Your task to perform on an android device: Clear the cart on walmart. Add razer naga to the cart on walmart, then select checkout. Image 0: 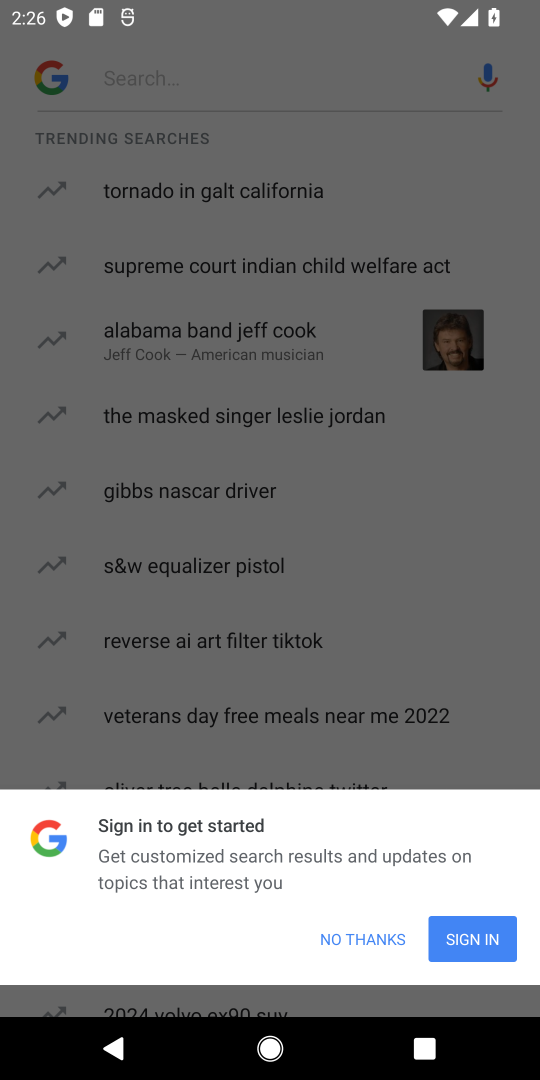
Step 0: press home button
Your task to perform on an android device: Clear the cart on walmart. Add razer naga to the cart on walmart, then select checkout. Image 1: 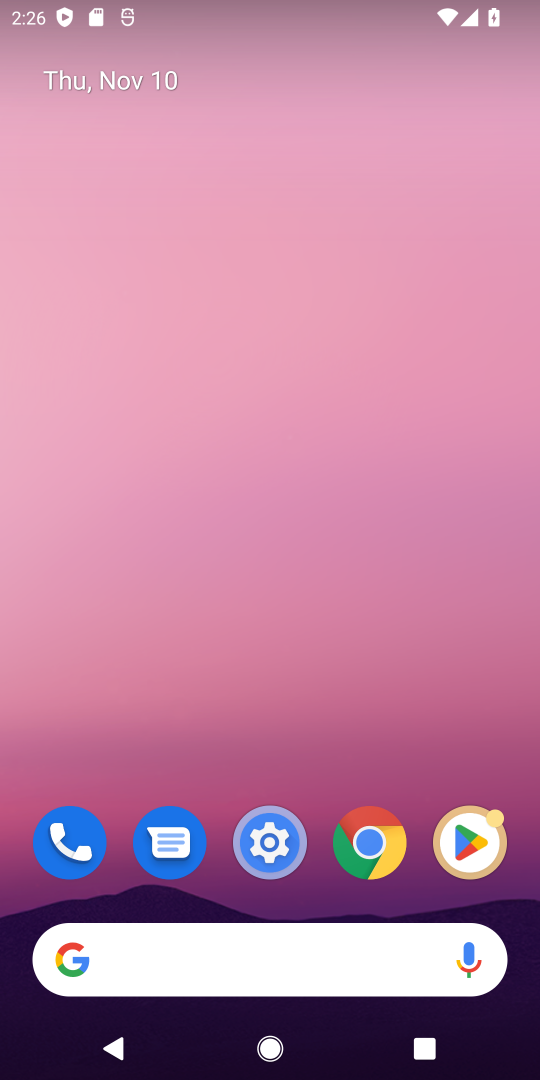
Step 1: click (117, 956)
Your task to perform on an android device: Clear the cart on walmart. Add razer naga to the cart on walmart, then select checkout. Image 2: 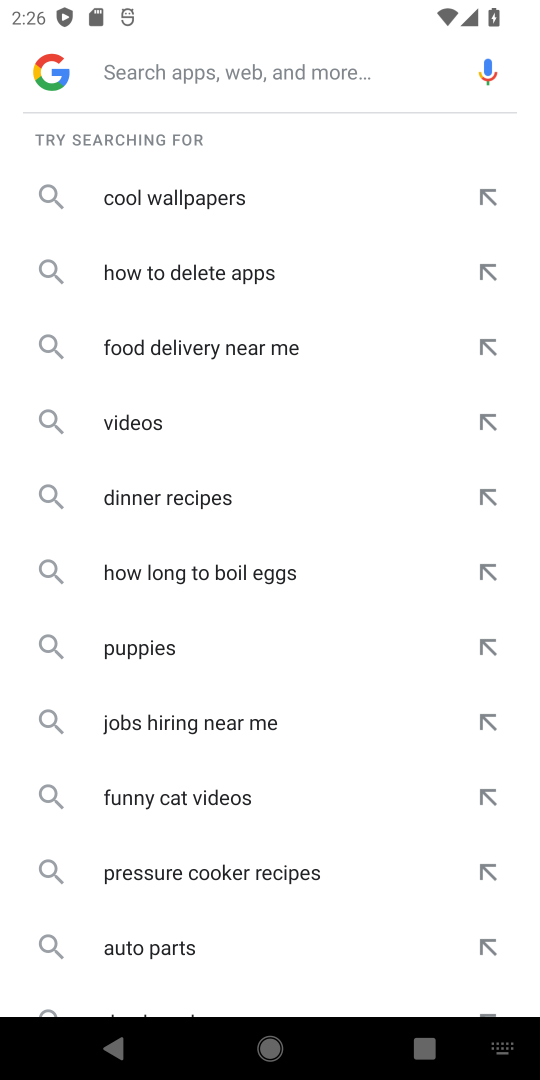
Step 2: type " walmart."
Your task to perform on an android device: Clear the cart on walmart. Add razer naga to the cart on walmart, then select checkout. Image 3: 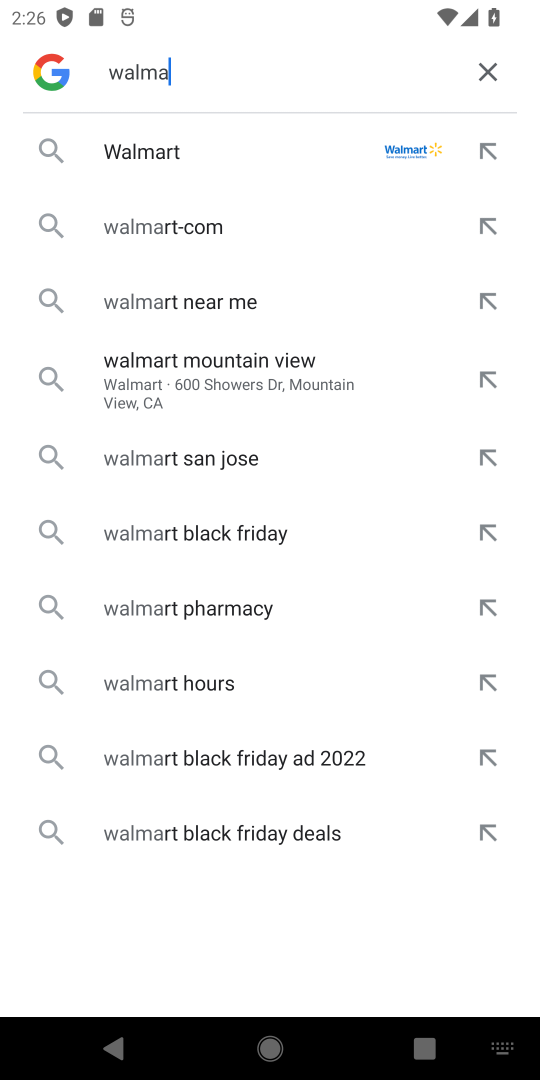
Step 3: press enter
Your task to perform on an android device: Clear the cart on walmart. Add razer naga to the cart on walmart, then select checkout. Image 4: 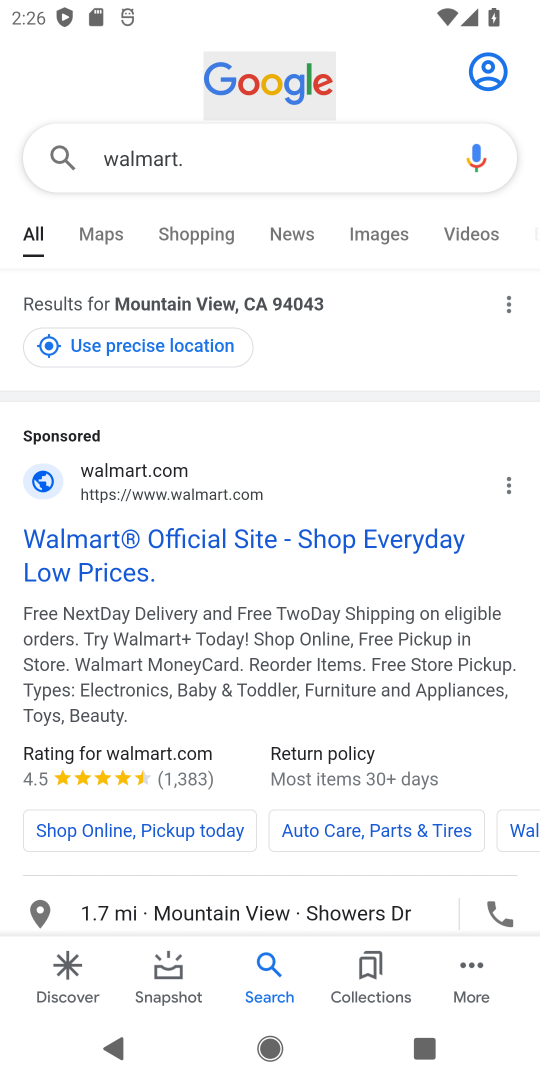
Step 4: click (92, 537)
Your task to perform on an android device: Clear the cart on walmart. Add razer naga to the cart on walmart, then select checkout. Image 5: 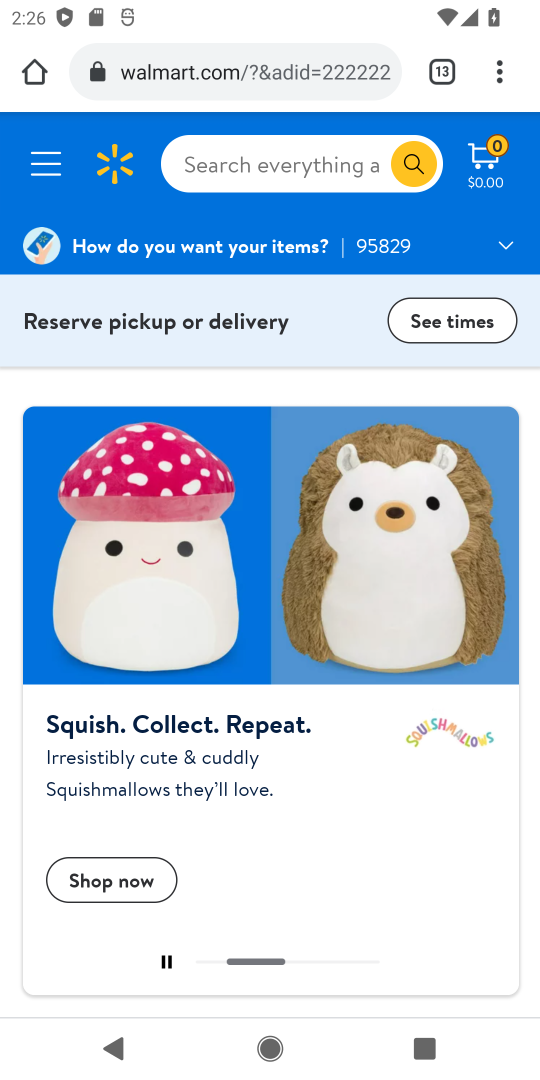
Step 5: click (226, 156)
Your task to perform on an android device: Clear the cart on walmart. Add razer naga to the cart on walmart, then select checkout. Image 6: 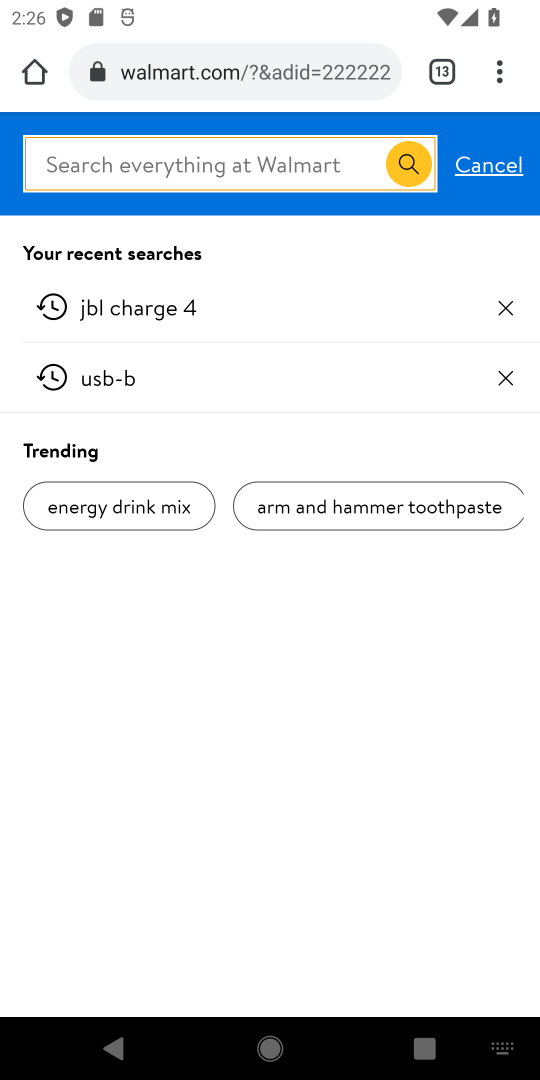
Step 6: press enter
Your task to perform on an android device: Clear the cart on walmart. Add razer naga to the cart on walmart, then select checkout. Image 7: 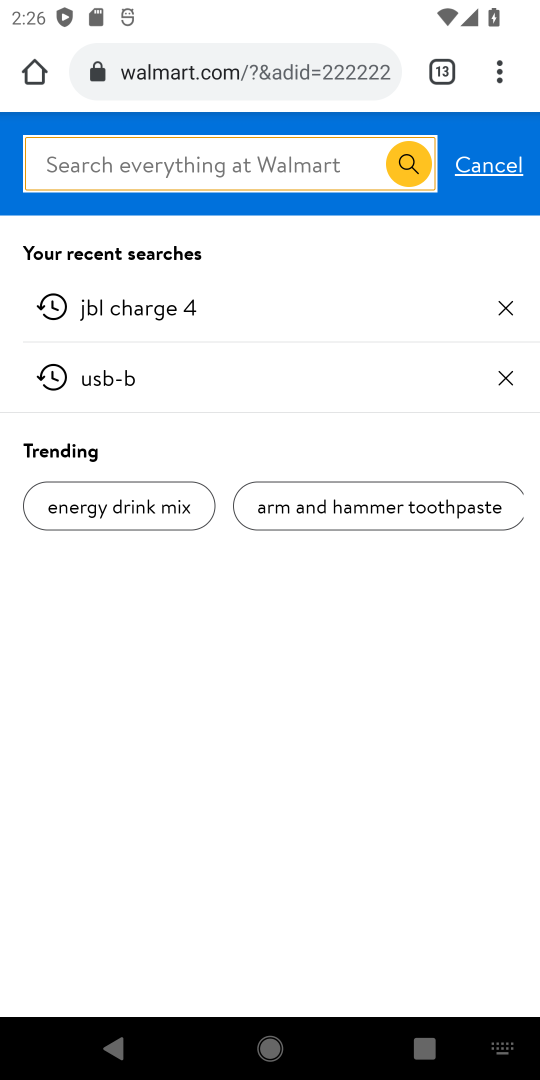
Step 7: type "razer naga"
Your task to perform on an android device: Clear the cart on walmart. Add razer naga to the cart on walmart, then select checkout. Image 8: 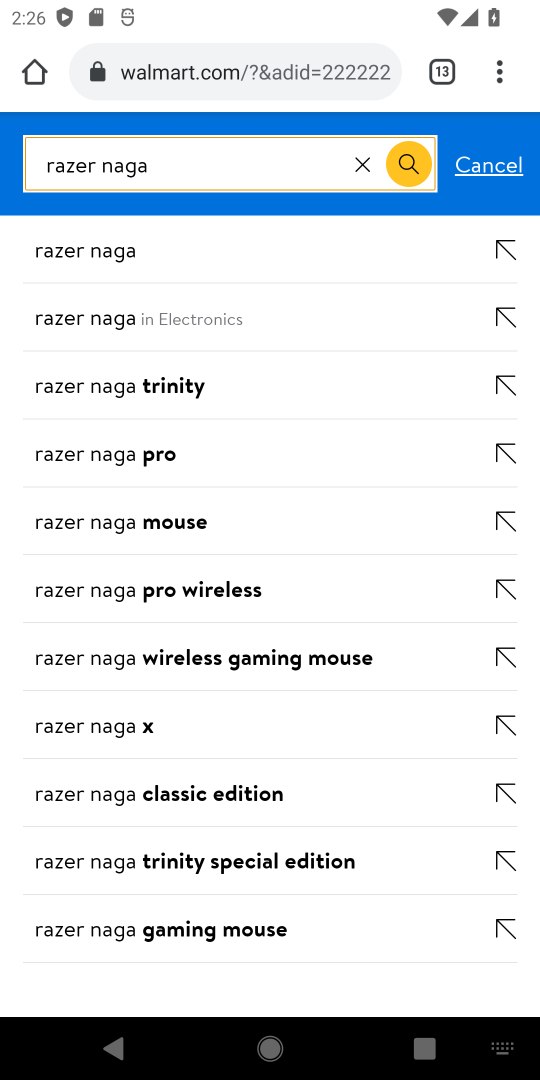
Step 8: press enter
Your task to perform on an android device: Clear the cart on walmart. Add razer naga to the cart on walmart, then select checkout. Image 9: 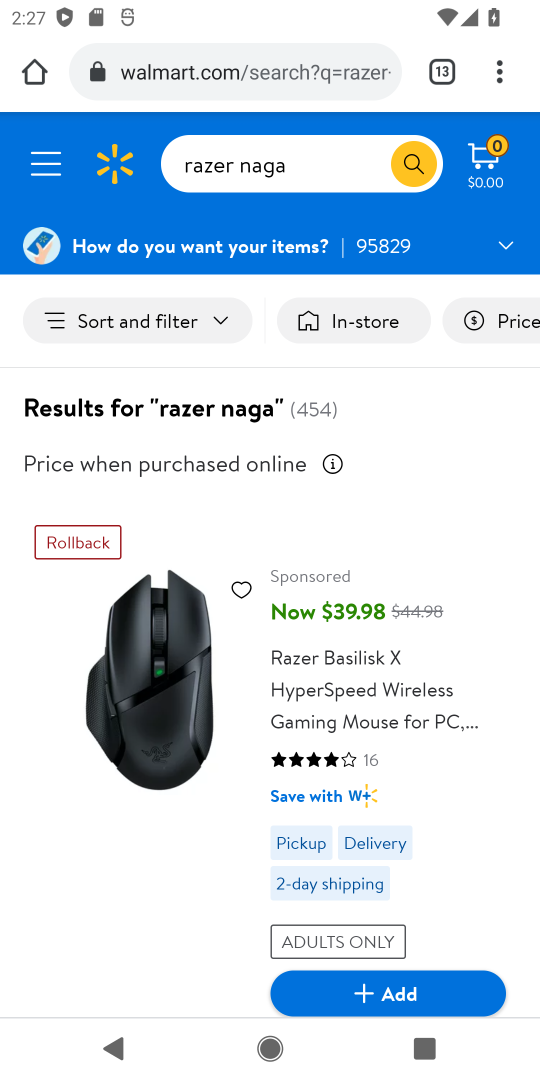
Step 9: drag from (455, 897) to (433, 459)
Your task to perform on an android device: Clear the cart on walmart. Add razer naga to the cart on walmart, then select checkout. Image 10: 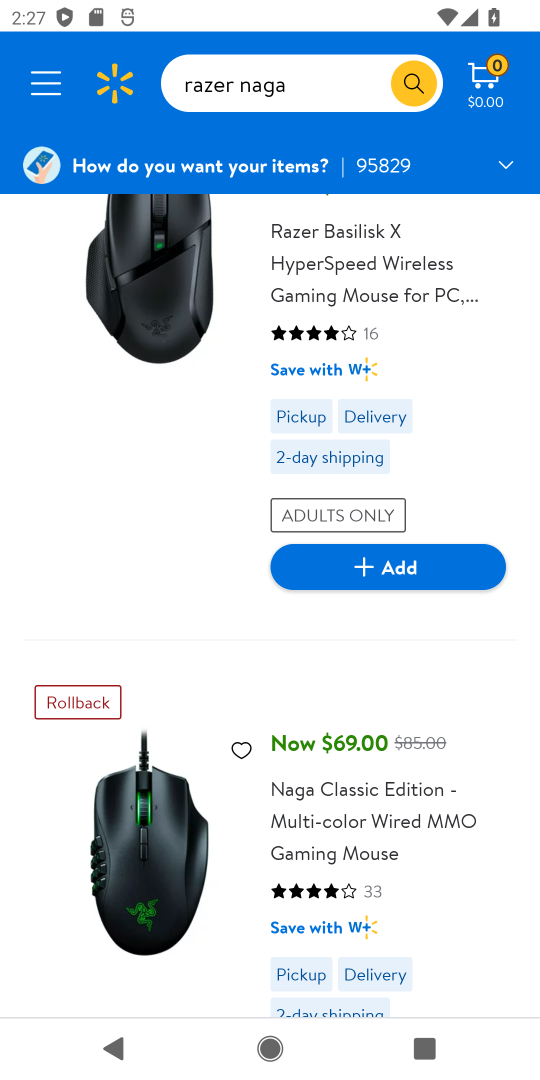
Step 10: drag from (415, 934) to (417, 592)
Your task to perform on an android device: Clear the cart on walmart. Add razer naga to the cart on walmart, then select checkout. Image 11: 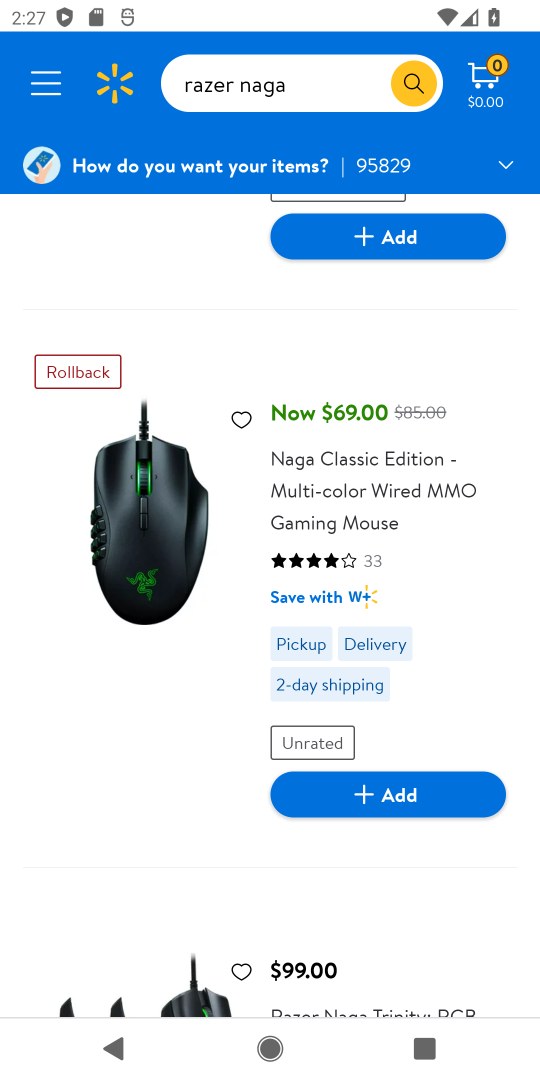
Step 11: drag from (401, 908) to (401, 686)
Your task to perform on an android device: Clear the cart on walmart. Add razer naga to the cart on walmart, then select checkout. Image 12: 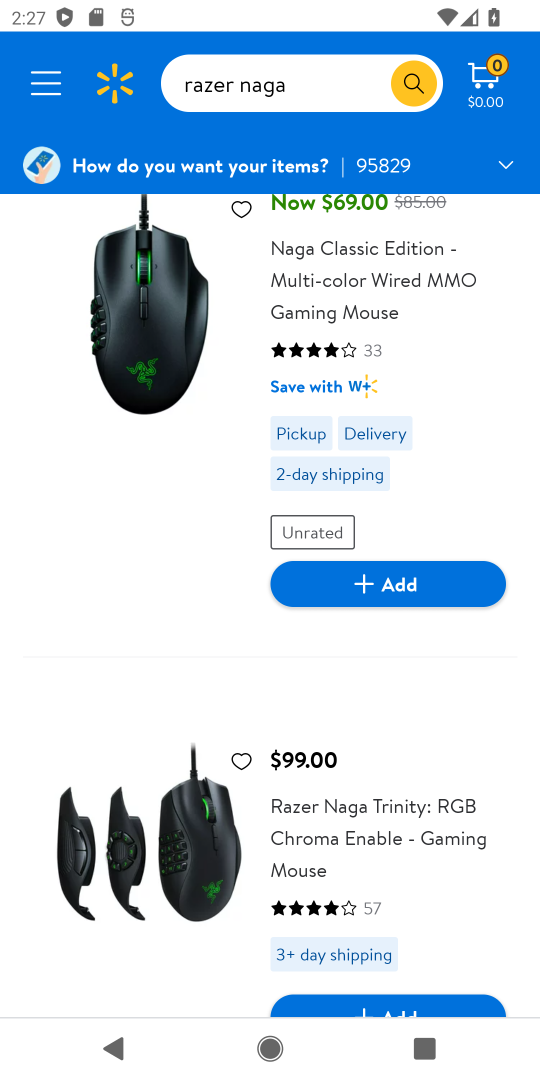
Step 12: click (440, 350)
Your task to perform on an android device: Clear the cart on walmart. Add razer naga to the cart on walmart, then select checkout. Image 13: 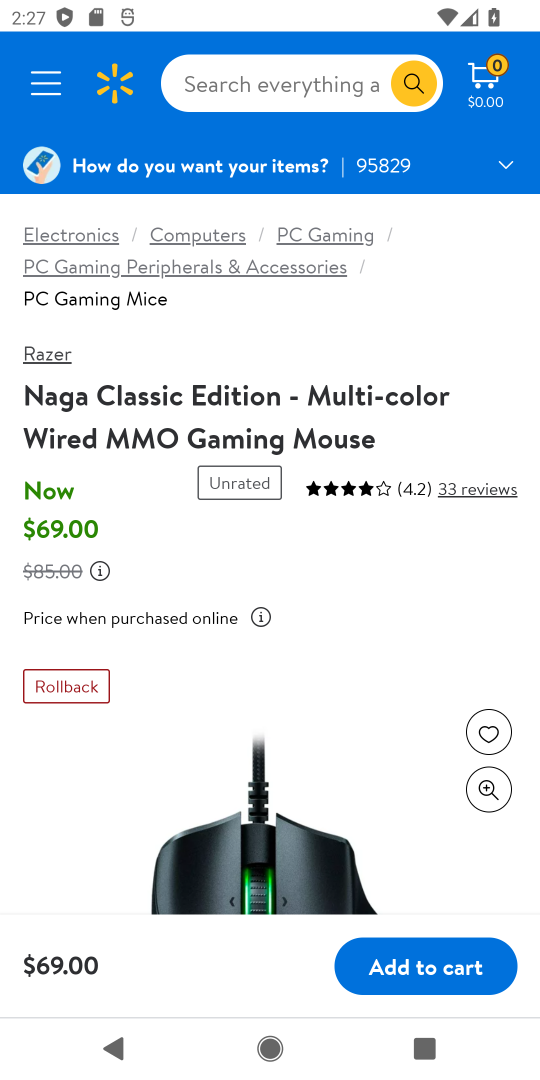
Step 13: drag from (318, 840) to (304, 372)
Your task to perform on an android device: Clear the cart on walmart. Add razer naga to the cart on walmart, then select checkout. Image 14: 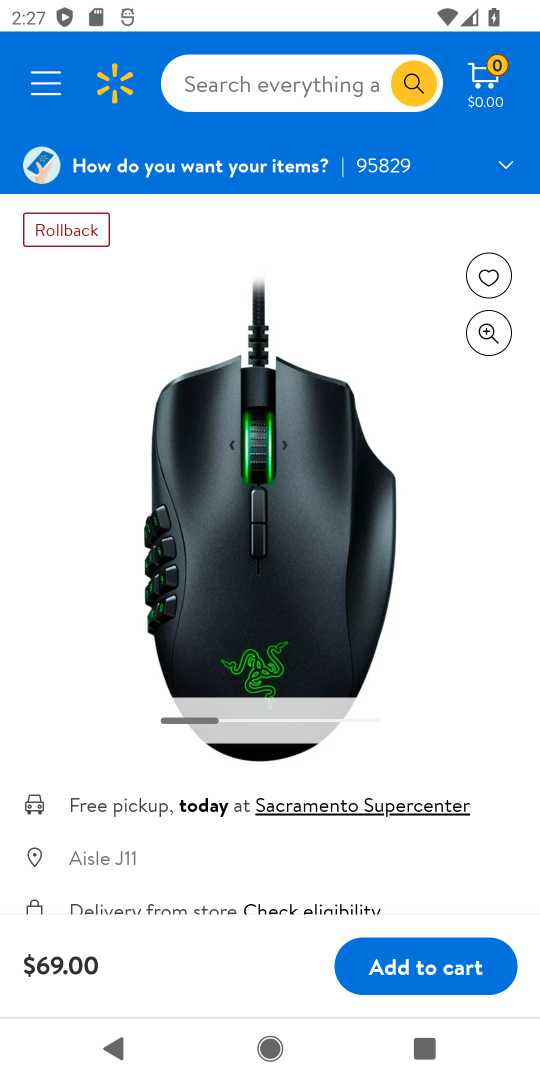
Step 14: click (451, 968)
Your task to perform on an android device: Clear the cart on walmart. Add razer naga to the cart on walmart, then select checkout. Image 15: 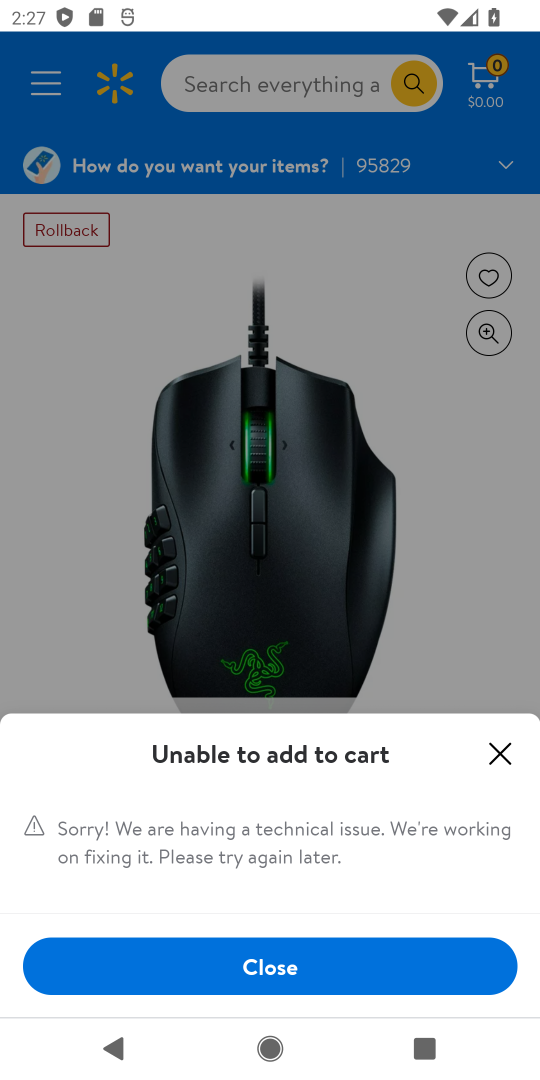
Step 15: click (265, 976)
Your task to perform on an android device: Clear the cart on walmart. Add razer naga to the cart on walmart, then select checkout. Image 16: 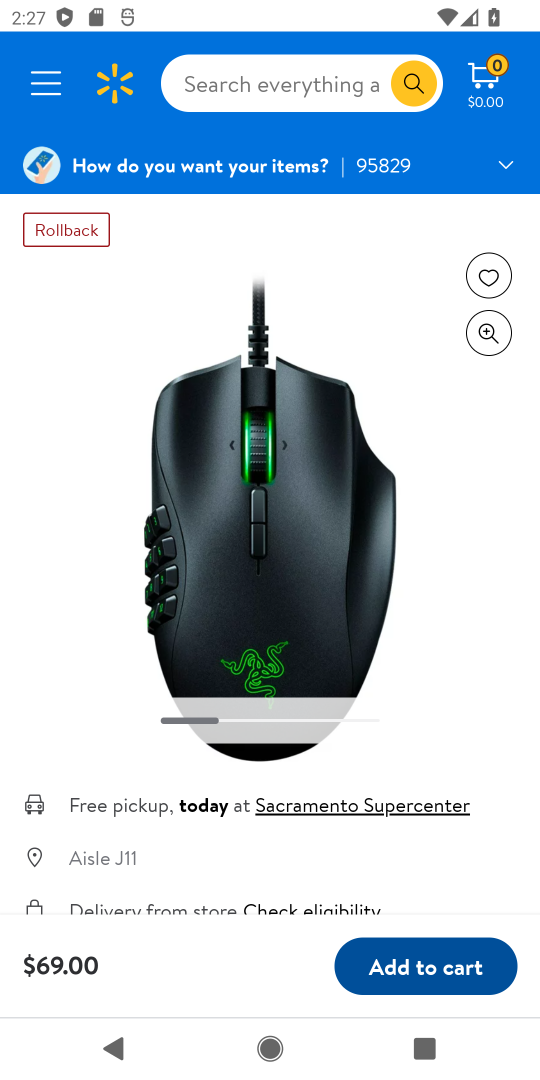
Step 16: click (418, 975)
Your task to perform on an android device: Clear the cart on walmart. Add razer naga to the cart on walmart, then select checkout. Image 17: 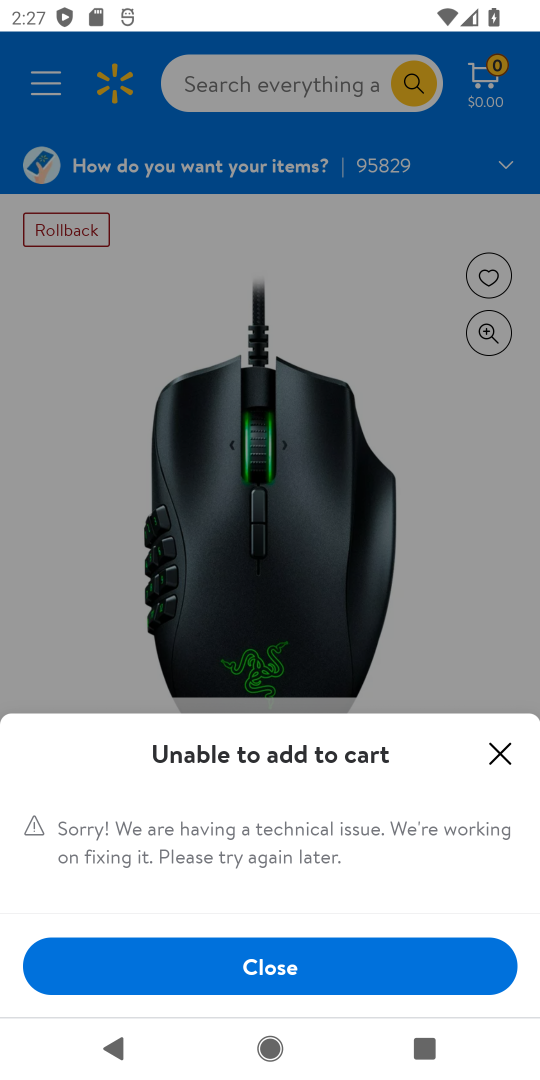
Step 17: task complete